Your task to perform on an android device: open a bookmark in the chrome app Image 0: 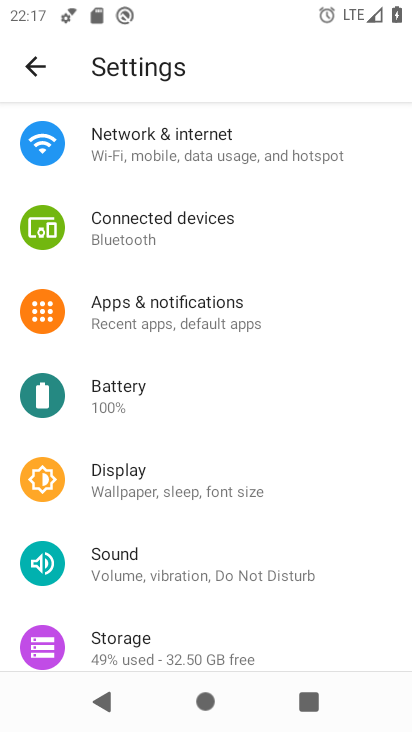
Step 0: press home button
Your task to perform on an android device: open a bookmark in the chrome app Image 1: 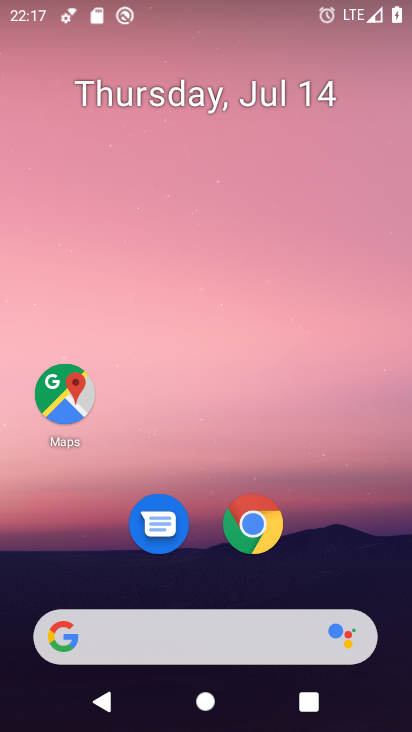
Step 1: click (266, 528)
Your task to perform on an android device: open a bookmark in the chrome app Image 2: 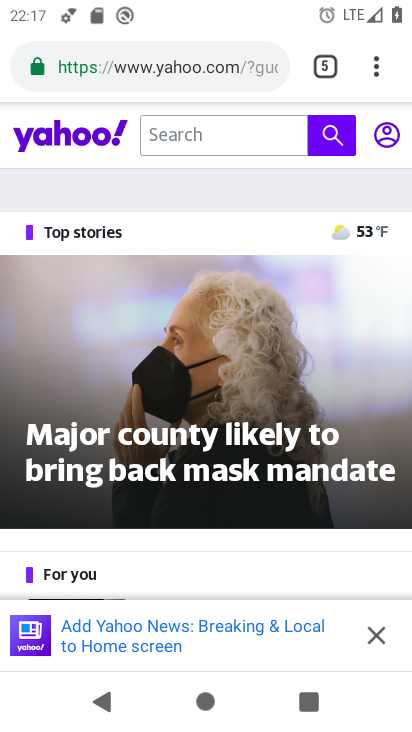
Step 2: click (375, 70)
Your task to perform on an android device: open a bookmark in the chrome app Image 3: 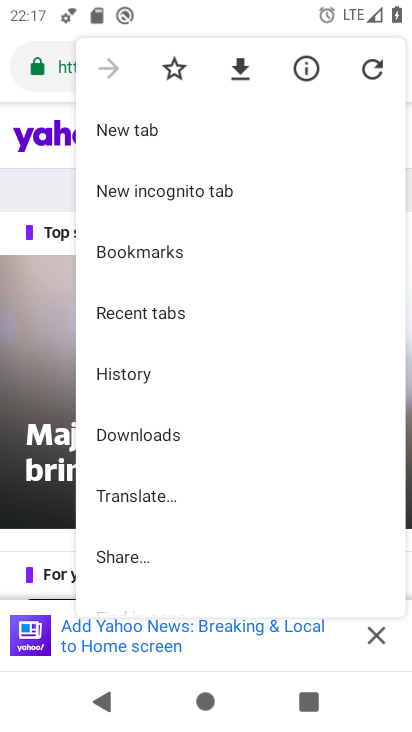
Step 3: click (210, 251)
Your task to perform on an android device: open a bookmark in the chrome app Image 4: 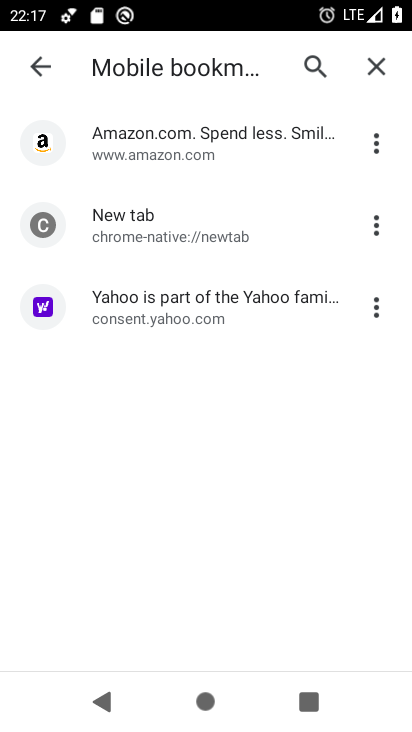
Step 4: click (211, 143)
Your task to perform on an android device: open a bookmark in the chrome app Image 5: 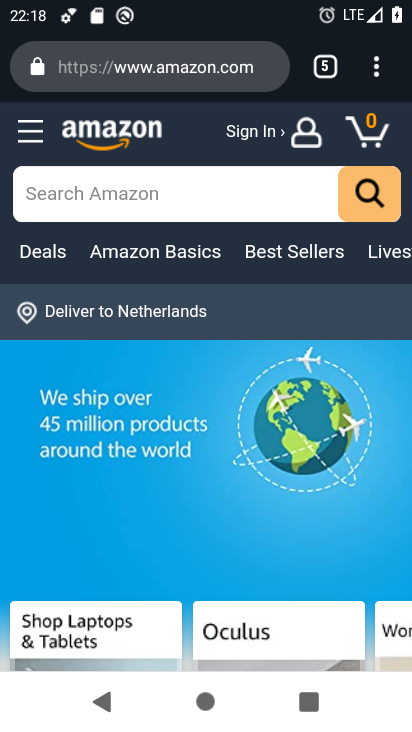
Step 5: task complete